Your task to perform on an android device: toggle airplane mode Image 0: 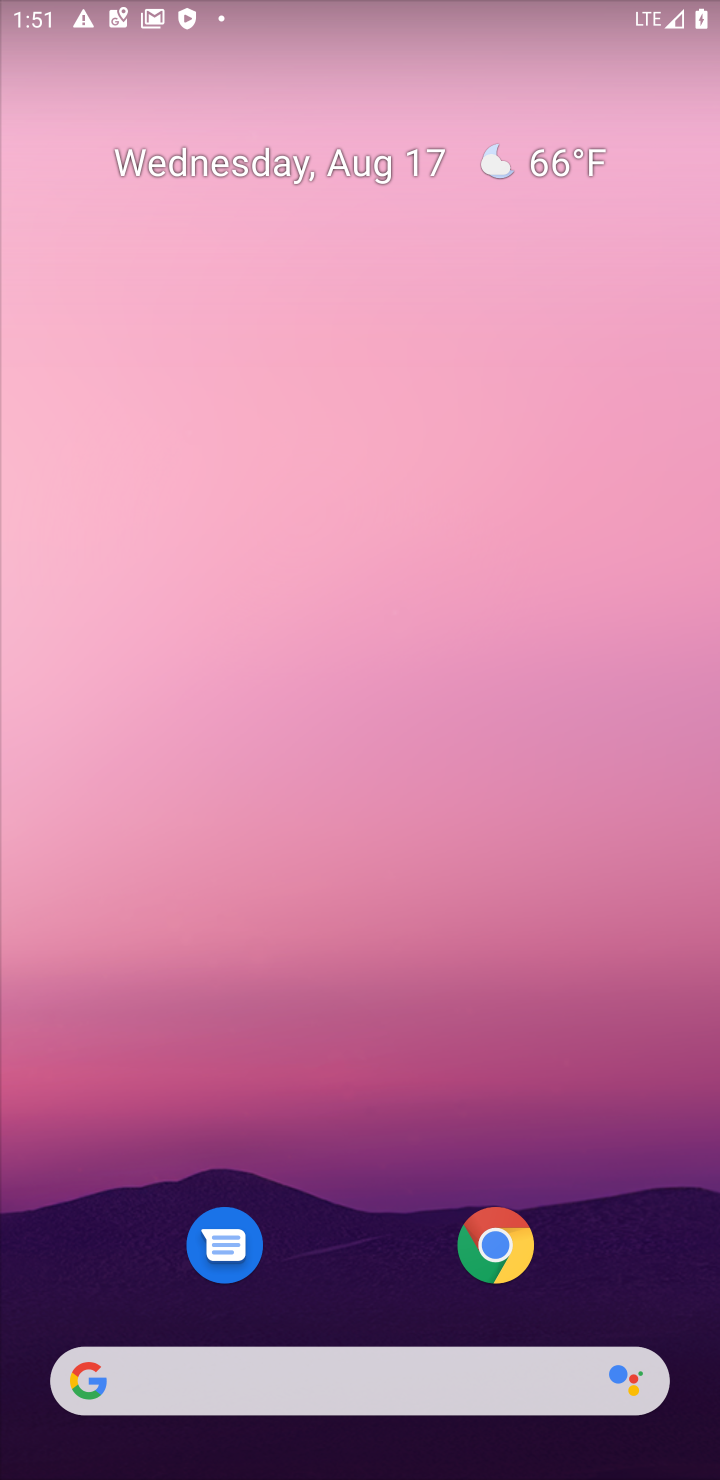
Step 0: drag from (353, 1163) to (319, 253)
Your task to perform on an android device: toggle airplane mode Image 1: 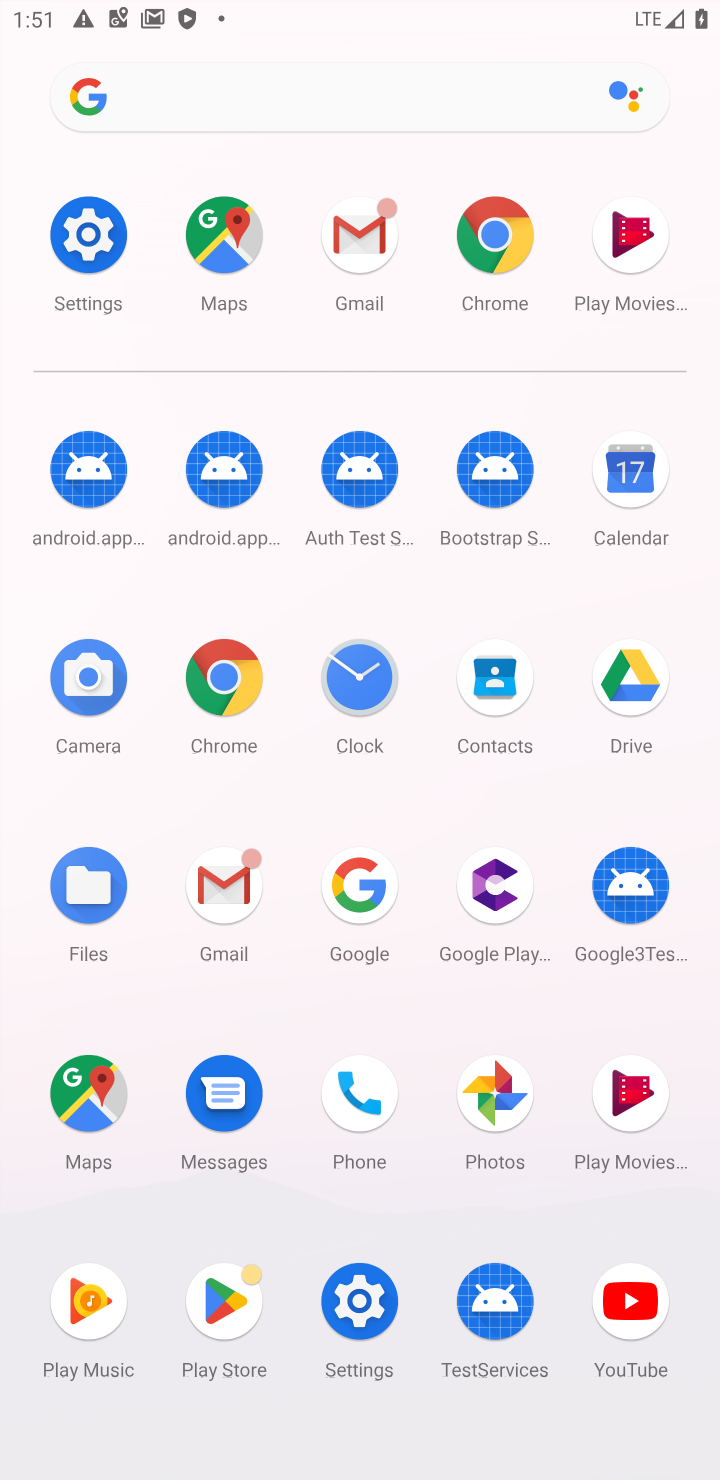
Step 1: click (361, 1306)
Your task to perform on an android device: toggle airplane mode Image 2: 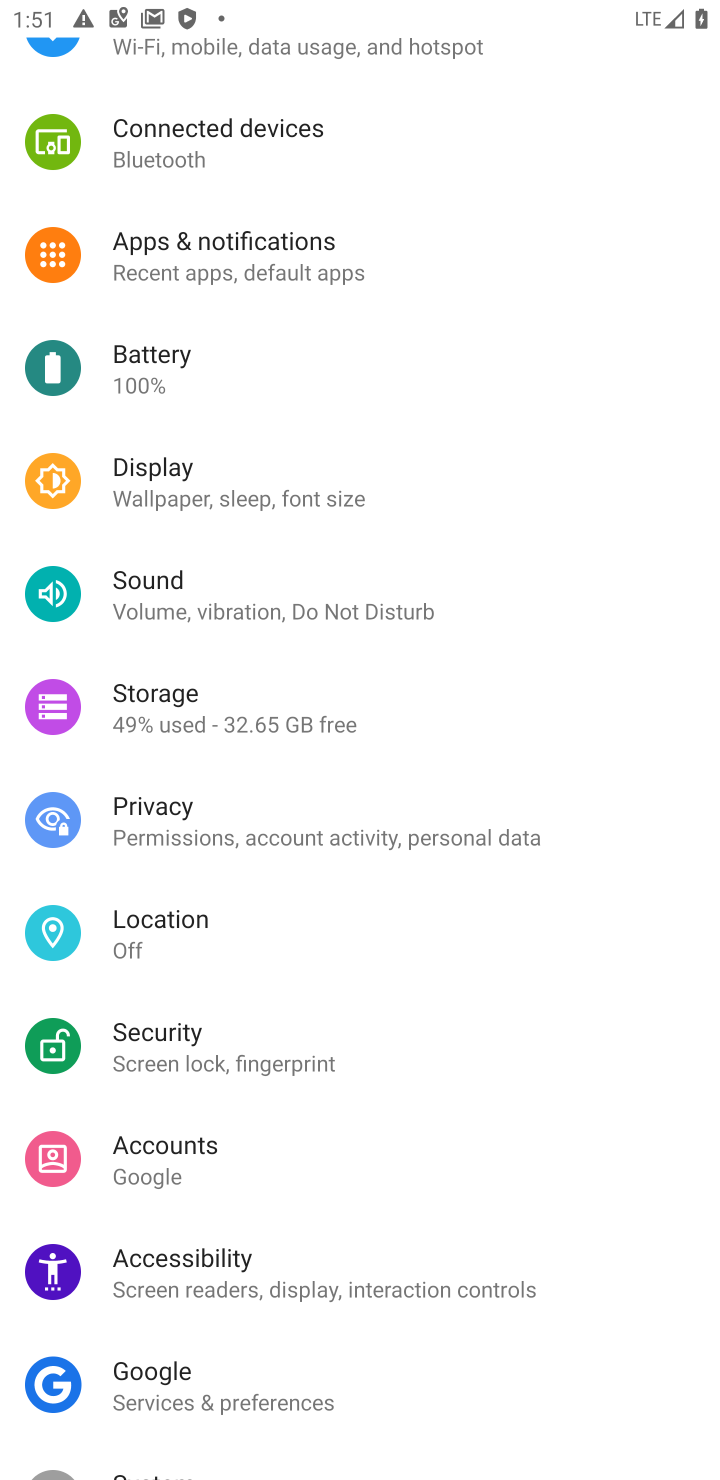
Step 2: drag from (238, 242) to (323, 1337)
Your task to perform on an android device: toggle airplane mode Image 3: 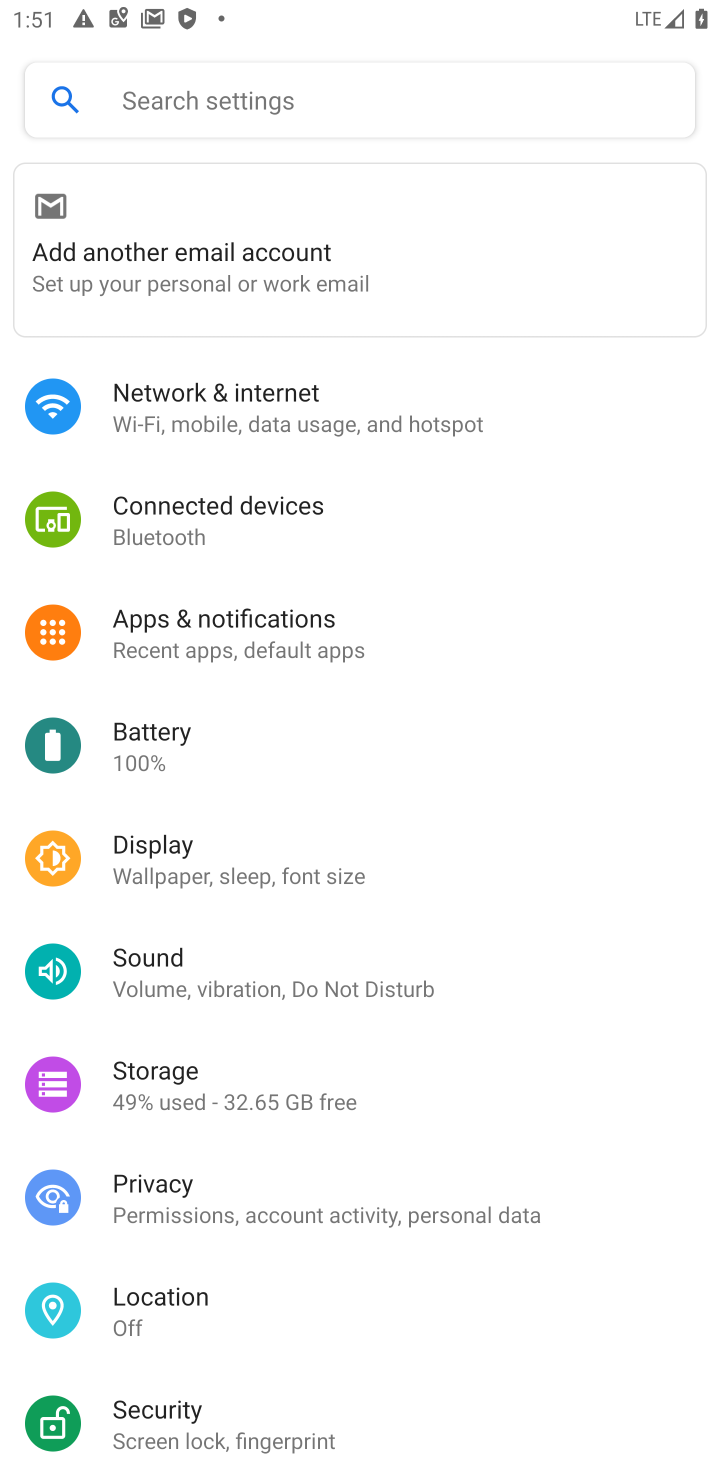
Step 3: click (218, 417)
Your task to perform on an android device: toggle airplane mode Image 4: 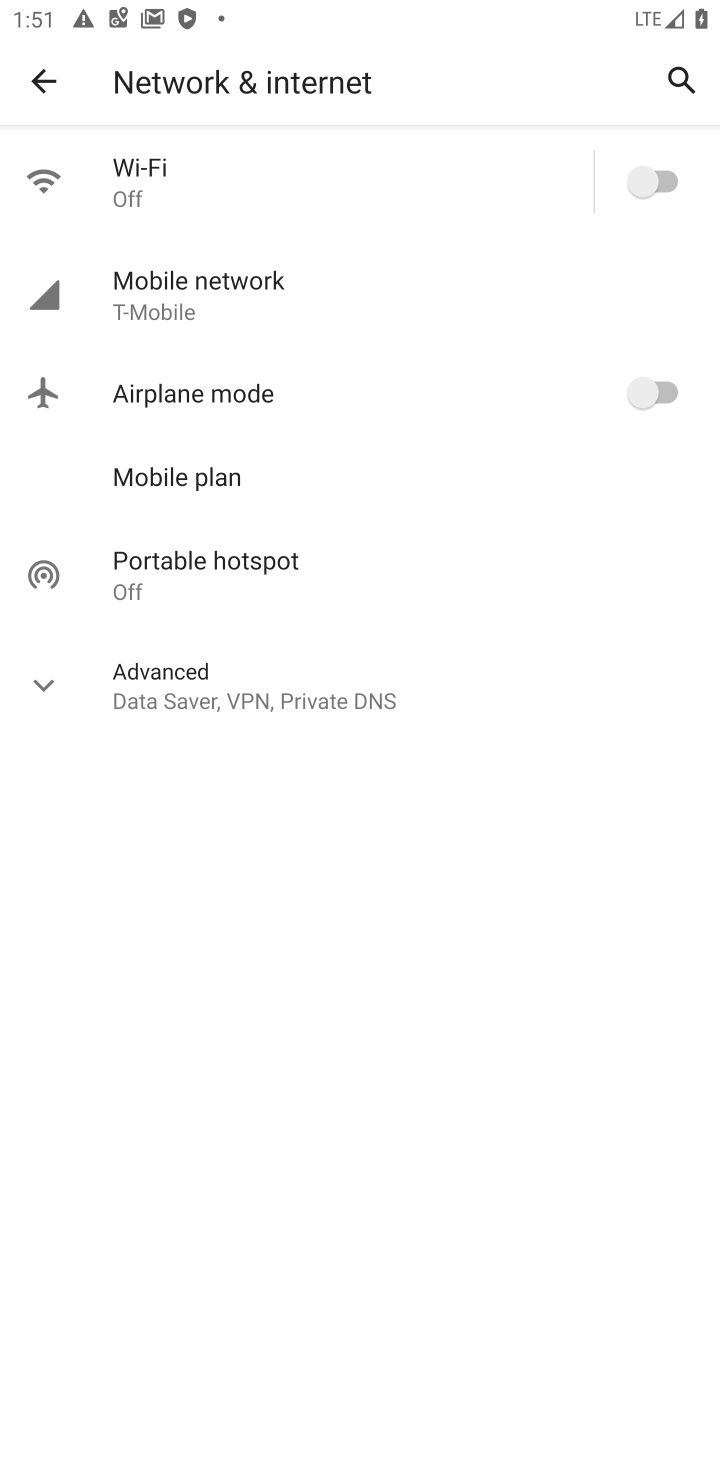
Step 4: click (671, 388)
Your task to perform on an android device: toggle airplane mode Image 5: 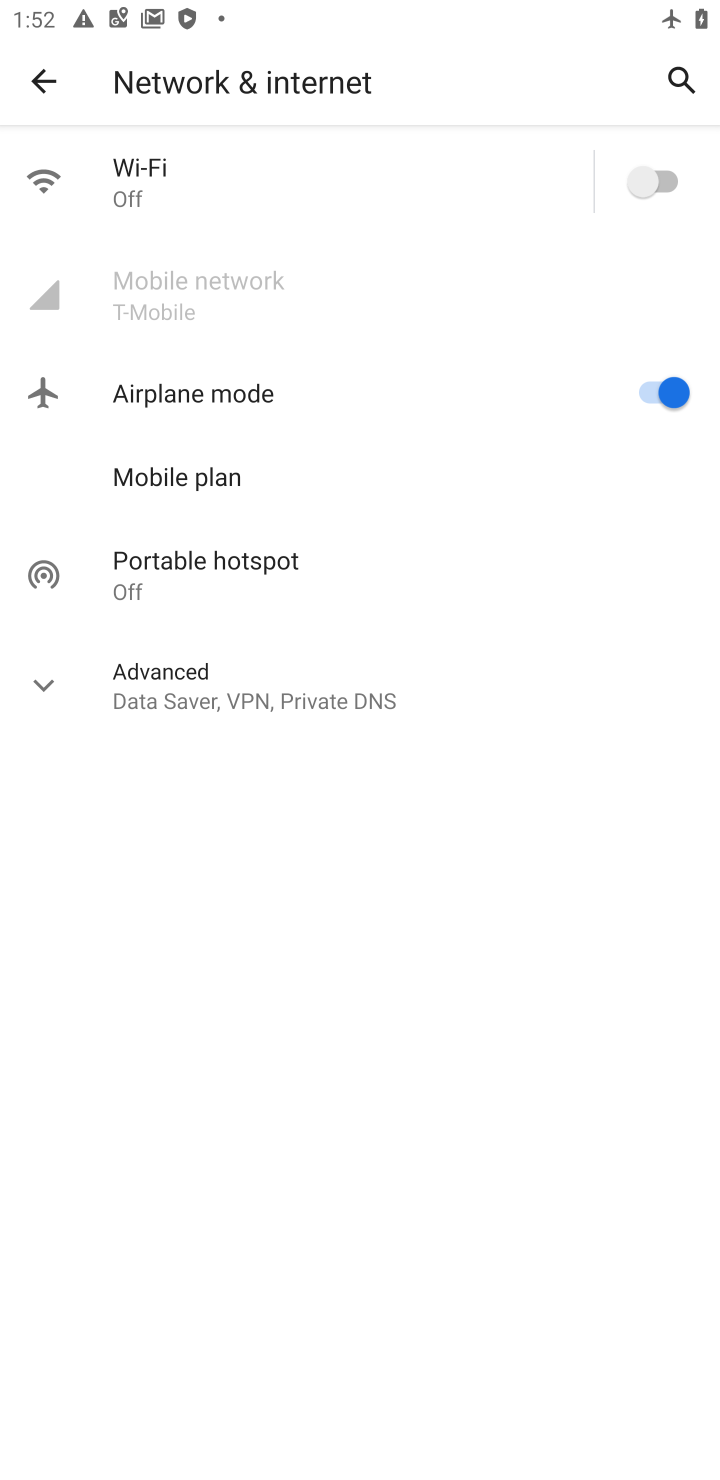
Step 5: task complete